Your task to perform on an android device: turn off airplane mode Image 0: 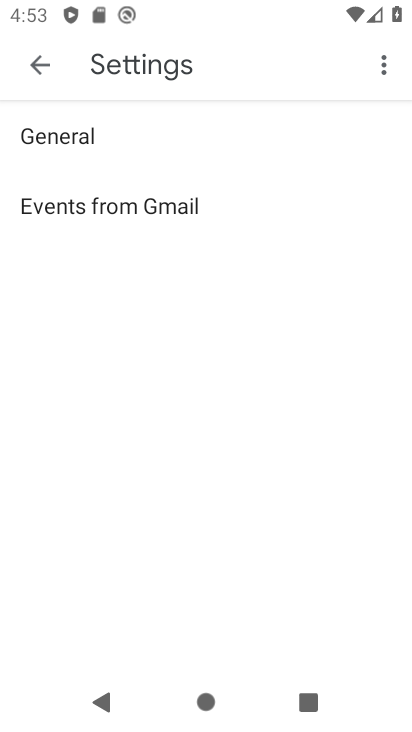
Step 0: press home button
Your task to perform on an android device: turn off airplane mode Image 1: 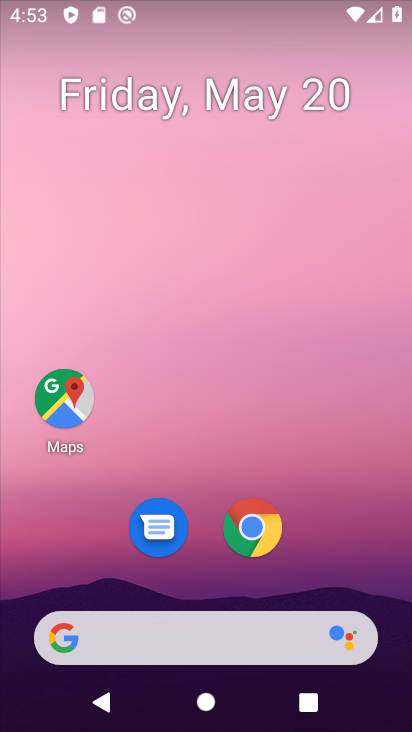
Step 1: drag from (198, 611) to (219, 21)
Your task to perform on an android device: turn off airplane mode Image 2: 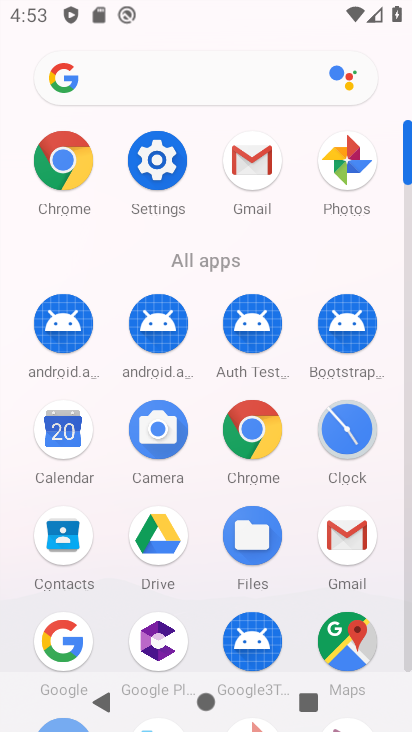
Step 2: click (160, 151)
Your task to perform on an android device: turn off airplane mode Image 3: 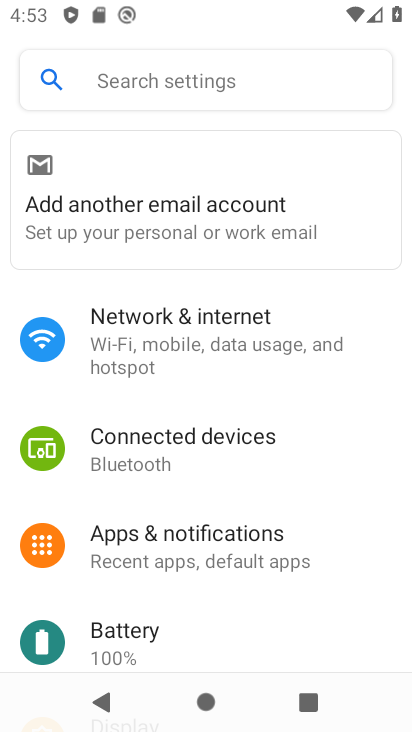
Step 3: click (235, 349)
Your task to perform on an android device: turn off airplane mode Image 4: 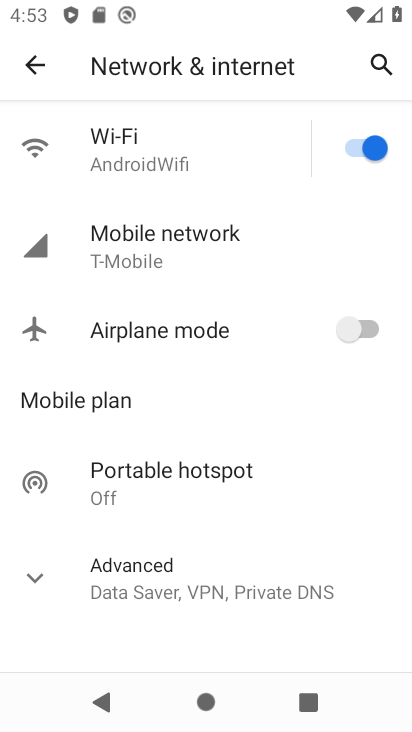
Step 4: task complete